Your task to perform on an android device: What's the weather going to be tomorrow? Image 0: 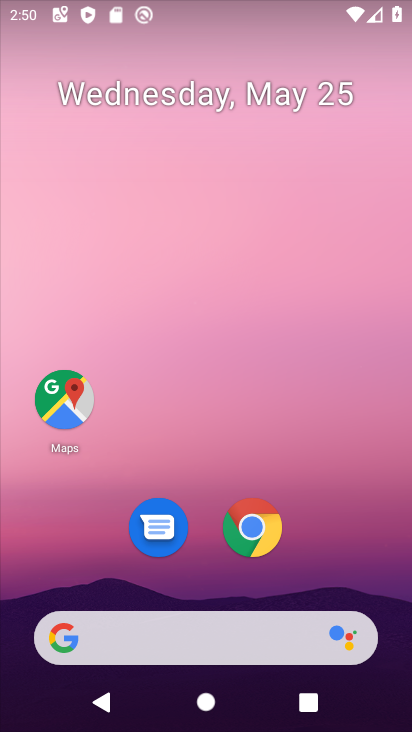
Step 0: click (246, 235)
Your task to perform on an android device: What's the weather going to be tomorrow? Image 1: 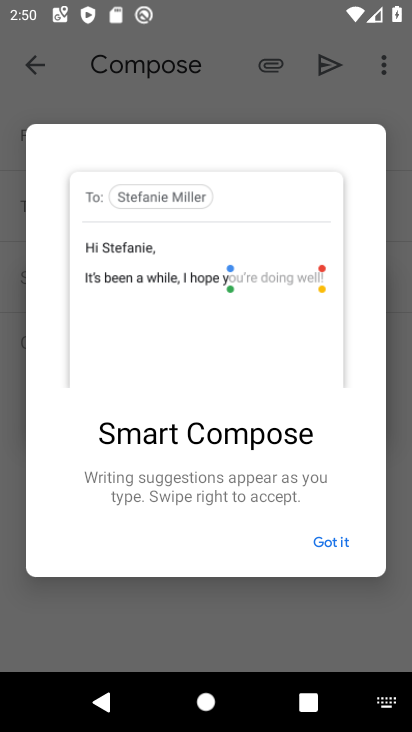
Step 1: press home button
Your task to perform on an android device: What's the weather going to be tomorrow? Image 2: 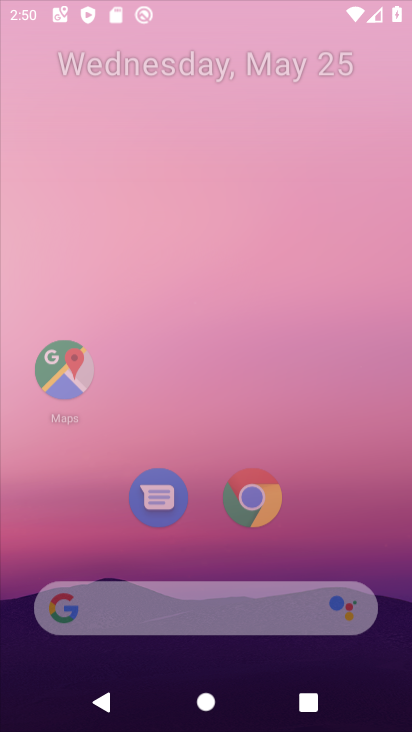
Step 2: drag from (230, 628) to (233, 127)
Your task to perform on an android device: What's the weather going to be tomorrow? Image 3: 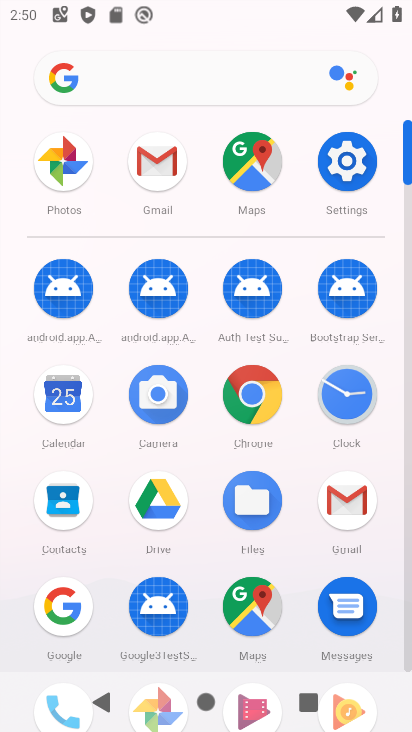
Step 3: click (143, 92)
Your task to perform on an android device: What's the weather going to be tomorrow? Image 4: 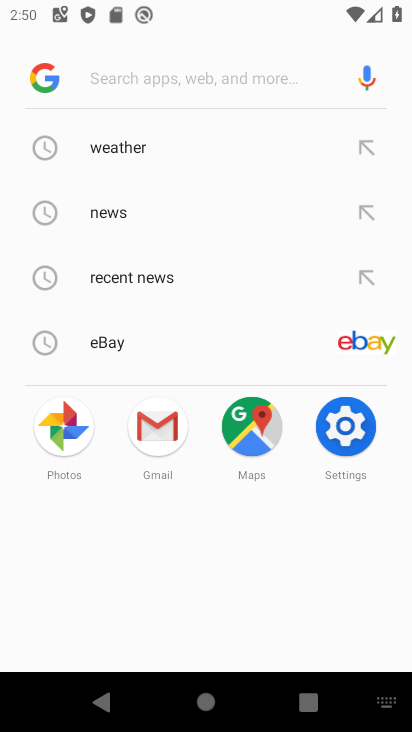
Step 4: click (127, 73)
Your task to perform on an android device: What's the weather going to be tomorrow? Image 5: 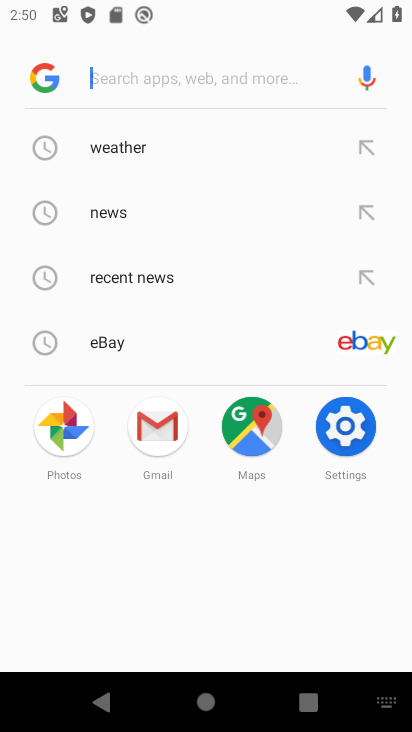
Step 5: type " weather going to be tomorrow?"
Your task to perform on an android device: What's the weather going to be tomorrow? Image 6: 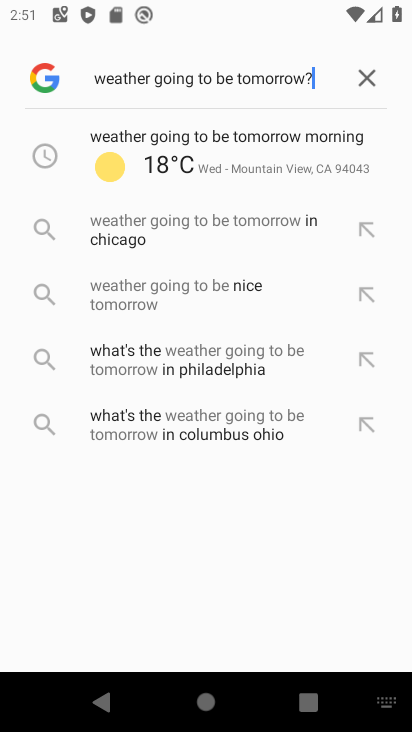
Step 6: drag from (215, 520) to (259, 62)
Your task to perform on an android device: What's the weather going to be tomorrow? Image 7: 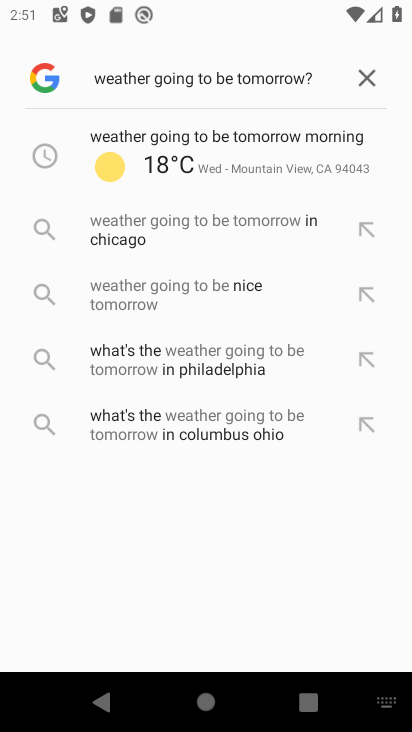
Step 7: click (160, 151)
Your task to perform on an android device: What's the weather going to be tomorrow? Image 8: 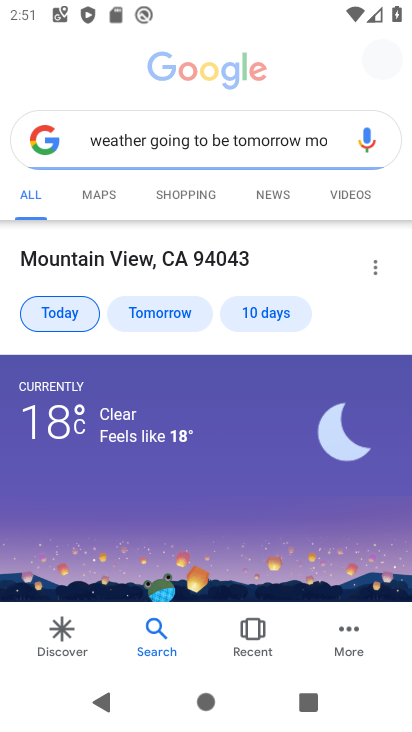
Step 8: task complete